Your task to perform on an android device: View the shopping cart on costco. Search for "panasonic triple a" on costco, select the first entry, and add it to the cart. Image 0: 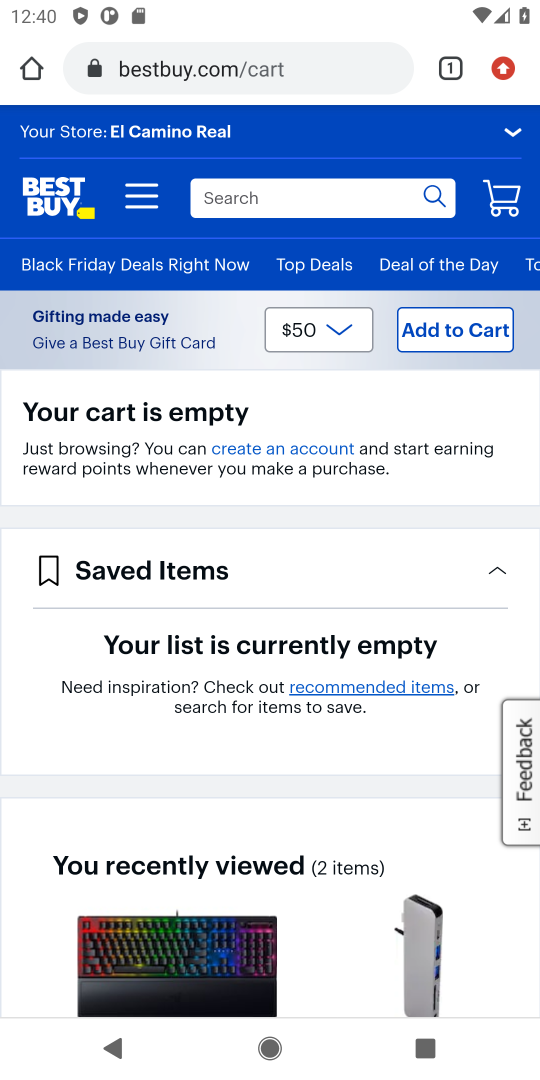
Step 0: click (298, 61)
Your task to perform on an android device: View the shopping cart on costco. Search for "panasonic triple a" on costco, select the first entry, and add it to the cart. Image 1: 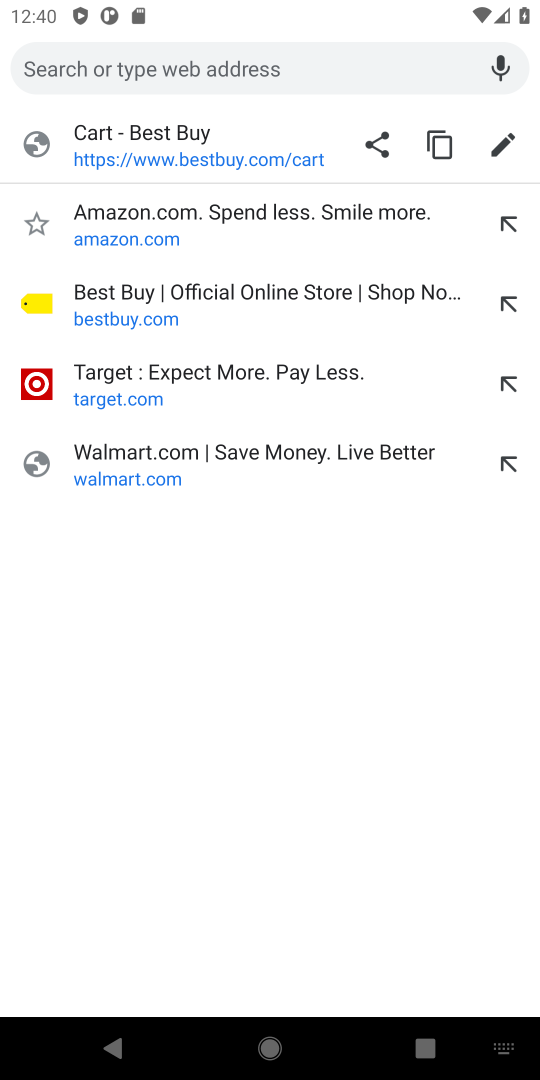
Step 1: type "costco"
Your task to perform on an android device: View the shopping cart on costco. Search for "panasonic triple a" on costco, select the first entry, and add it to the cart. Image 2: 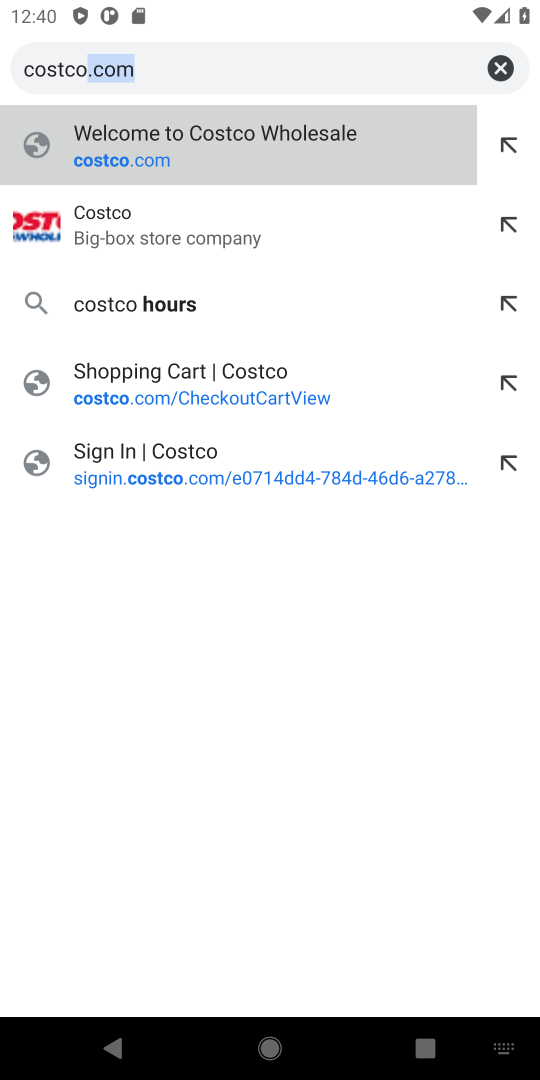
Step 2: type ""
Your task to perform on an android device: View the shopping cart on costco. Search for "panasonic triple a" on costco, select the first entry, and add it to the cart. Image 3: 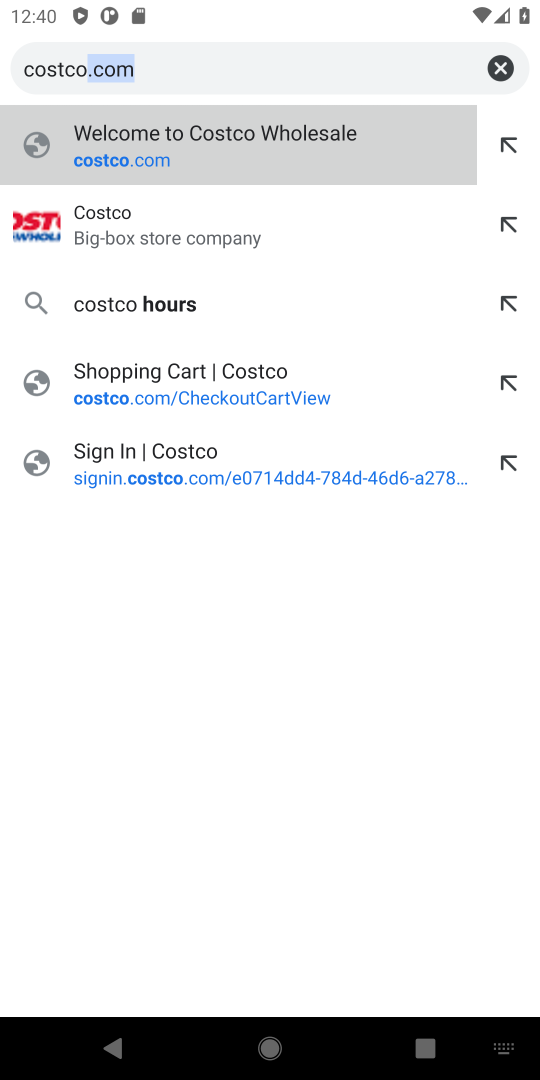
Step 3: press enter
Your task to perform on an android device: View the shopping cart on costco. Search for "panasonic triple a" on costco, select the first entry, and add it to the cart. Image 4: 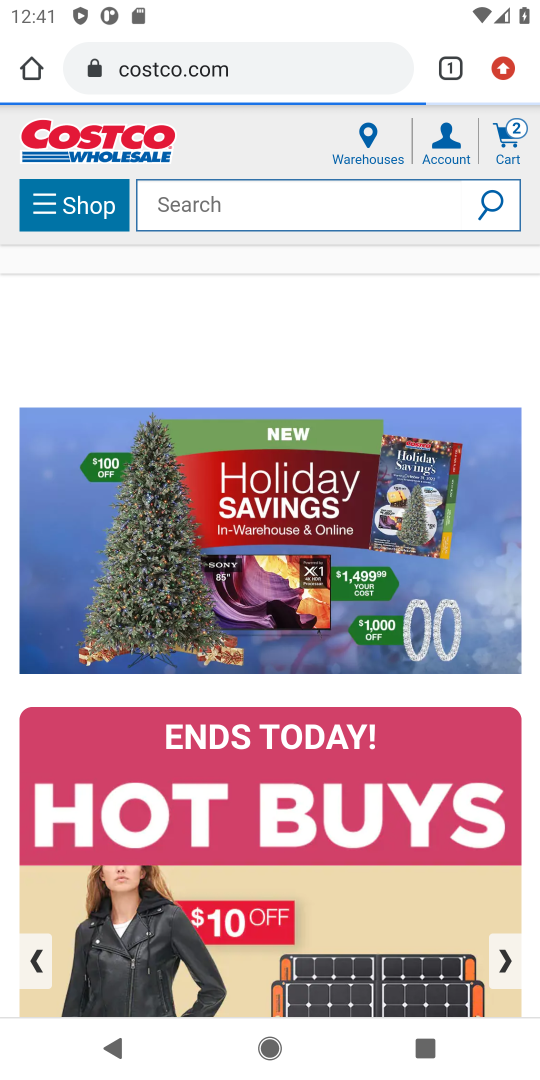
Step 4: click (502, 125)
Your task to perform on an android device: View the shopping cart on costco. Search for "panasonic triple a" on costco, select the first entry, and add it to the cart. Image 5: 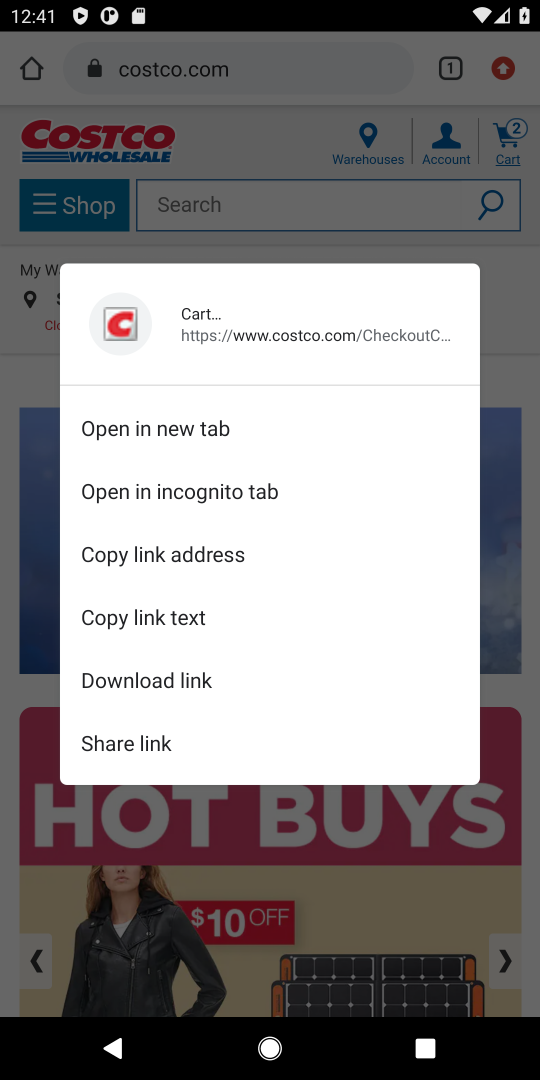
Step 5: click (517, 370)
Your task to perform on an android device: View the shopping cart on costco. Search for "panasonic triple a" on costco, select the first entry, and add it to the cart. Image 6: 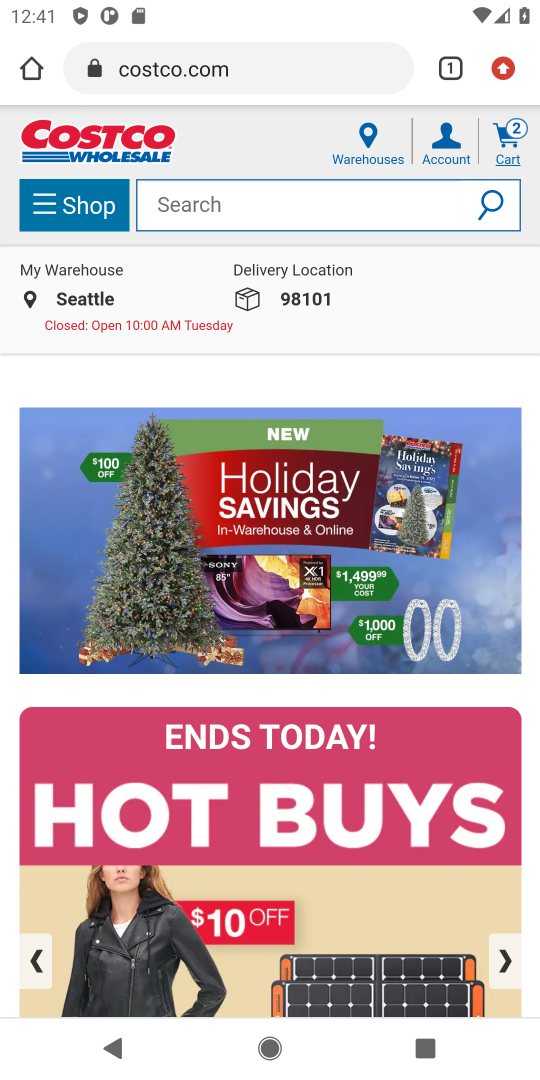
Step 6: click (512, 149)
Your task to perform on an android device: View the shopping cart on costco. Search for "panasonic triple a" on costco, select the first entry, and add it to the cart. Image 7: 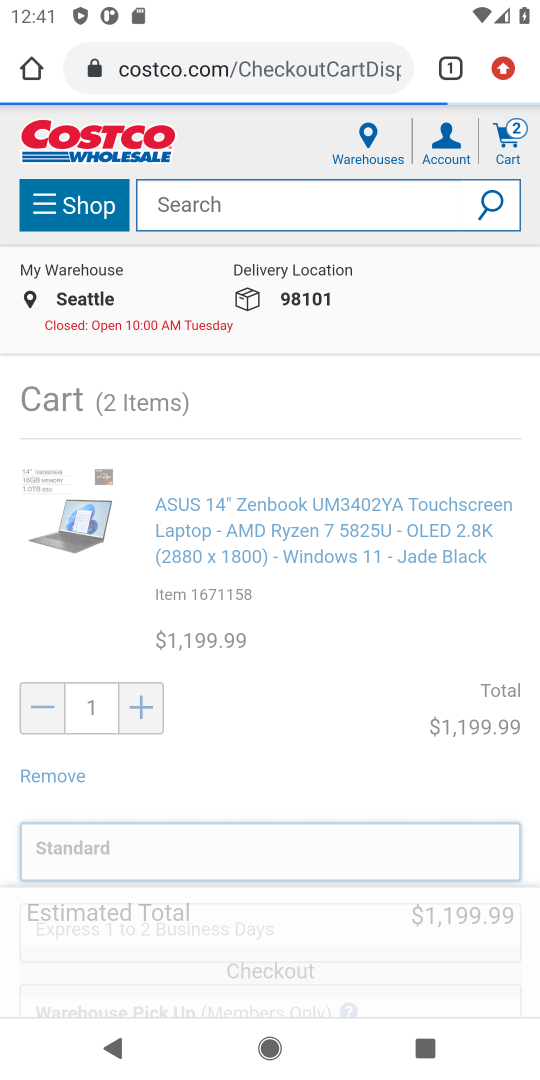
Step 7: click (66, 784)
Your task to perform on an android device: View the shopping cart on costco. Search for "panasonic triple a" on costco, select the first entry, and add it to the cart. Image 8: 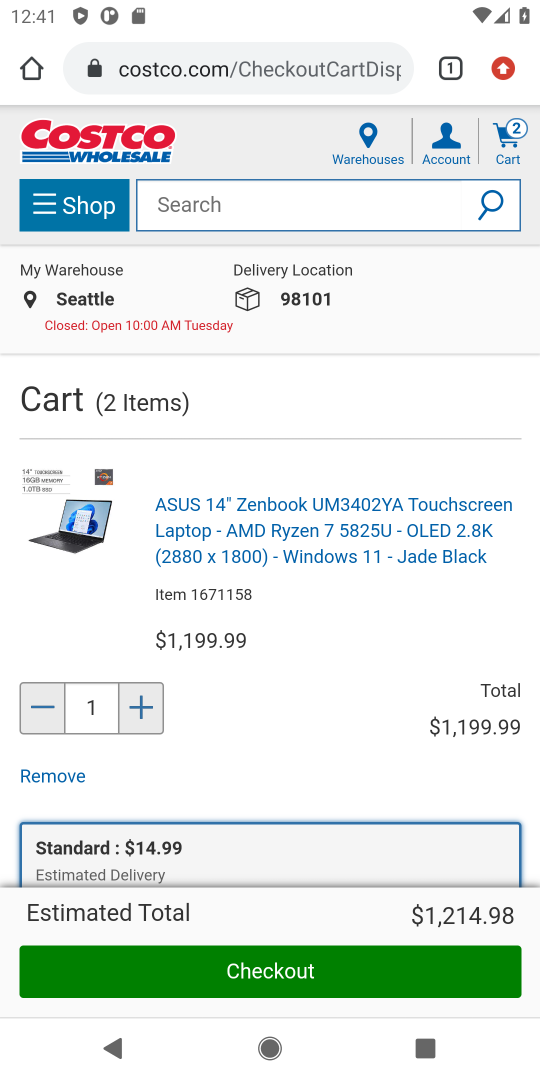
Step 8: click (69, 776)
Your task to perform on an android device: View the shopping cart on costco. Search for "panasonic triple a" on costco, select the first entry, and add it to the cart. Image 9: 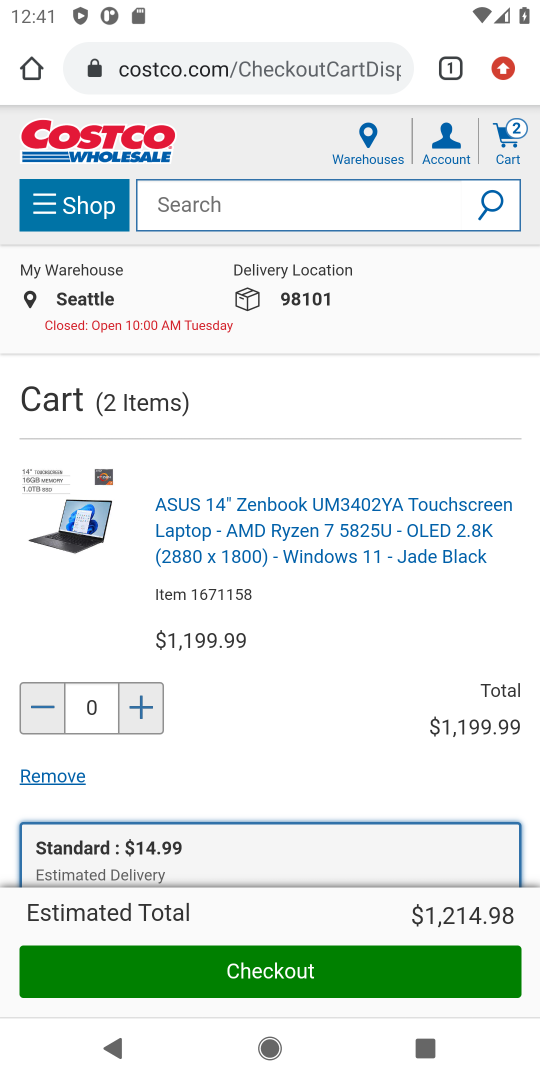
Step 9: drag from (342, 705) to (346, 138)
Your task to perform on an android device: View the shopping cart on costco. Search for "panasonic triple a" on costco, select the first entry, and add it to the cart. Image 10: 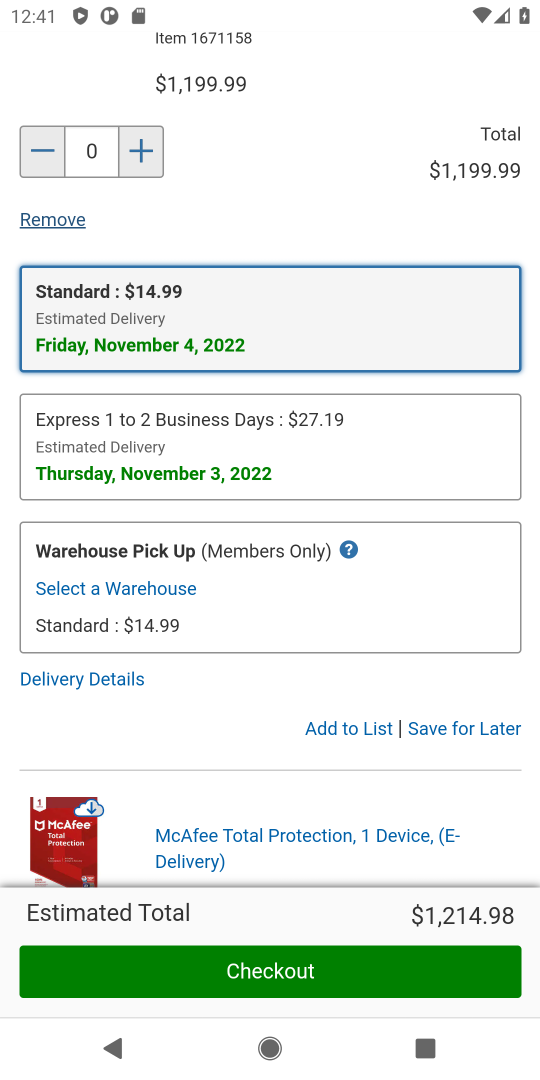
Step 10: click (458, 727)
Your task to perform on an android device: View the shopping cart on costco. Search for "panasonic triple a" on costco, select the first entry, and add it to the cart. Image 11: 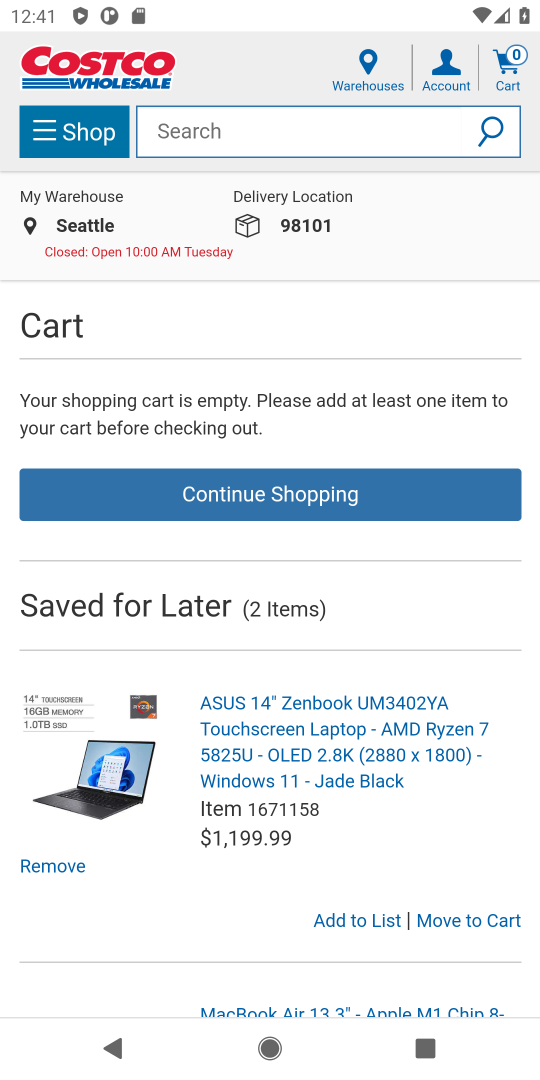
Step 11: click (307, 135)
Your task to perform on an android device: View the shopping cart on costco. Search for "panasonic triple a" on costco, select the first entry, and add it to the cart. Image 12: 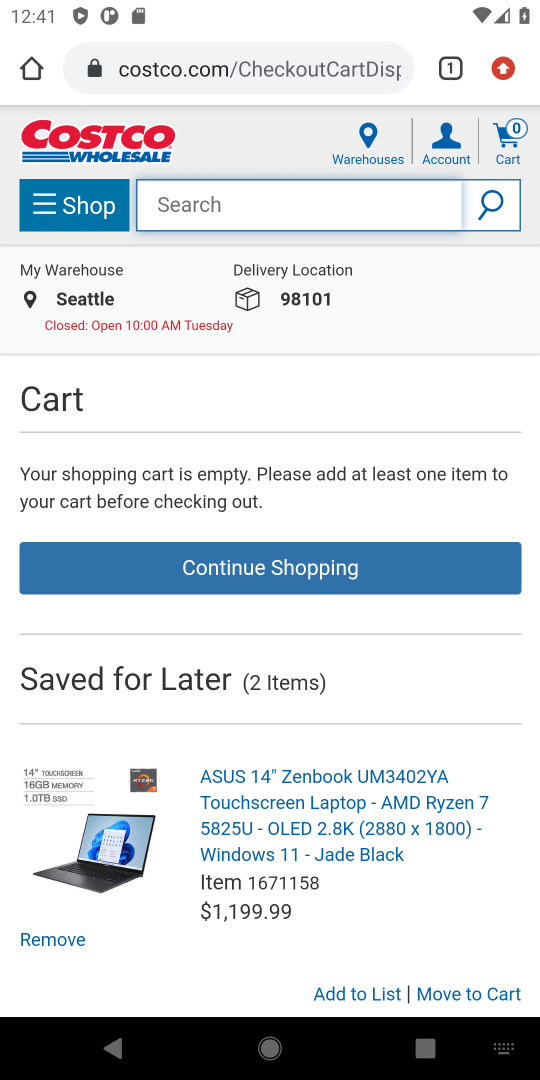
Step 12: type "panasonic triple a"
Your task to perform on an android device: View the shopping cart on costco. Search for "panasonic triple a" on costco, select the first entry, and add it to the cart. Image 13: 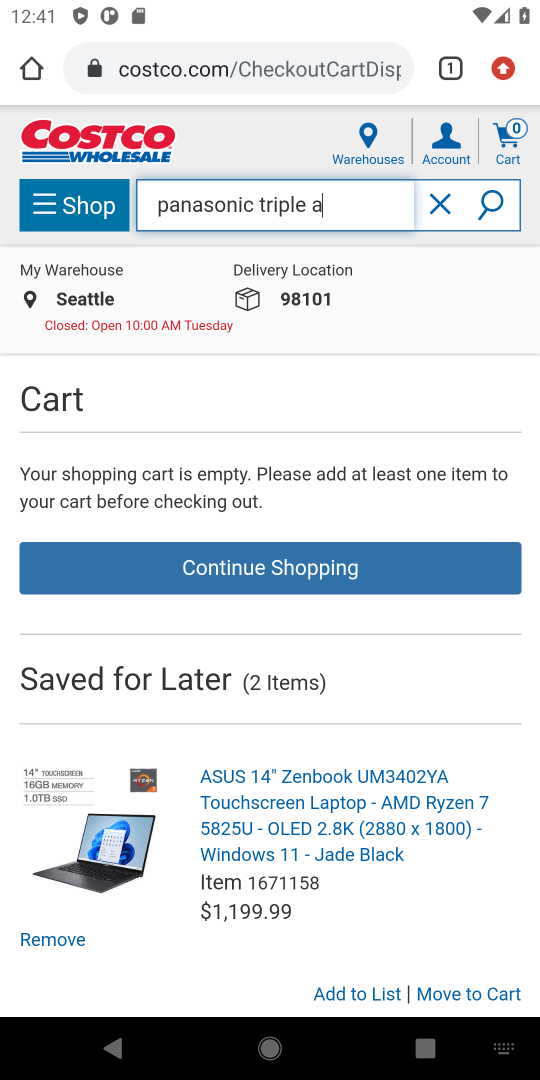
Step 13: type ""
Your task to perform on an android device: View the shopping cart on costco. Search for "panasonic triple a" on costco, select the first entry, and add it to the cart. Image 14: 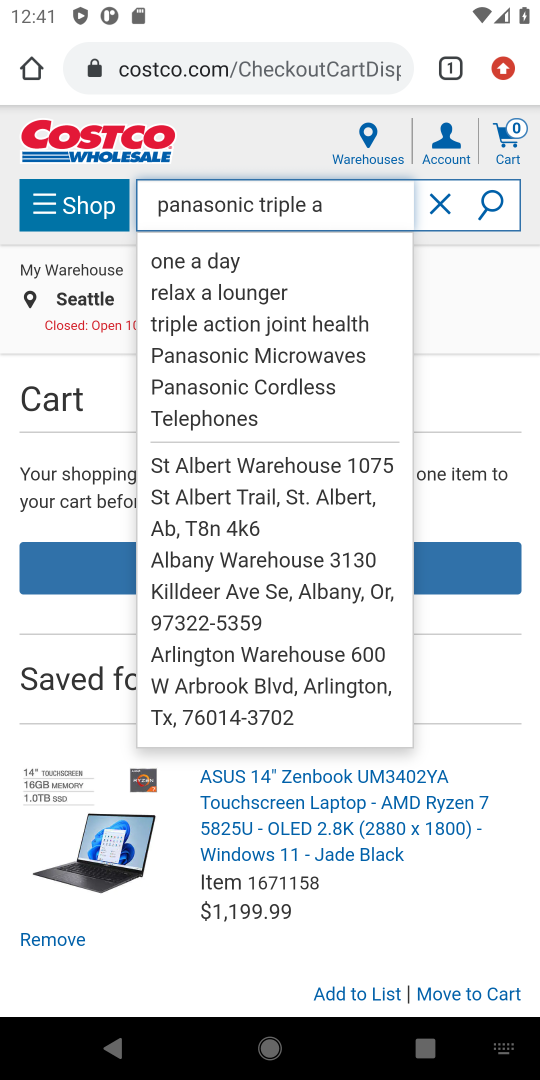
Step 14: press enter
Your task to perform on an android device: View the shopping cart on costco. Search for "panasonic triple a" on costco, select the first entry, and add it to the cart. Image 15: 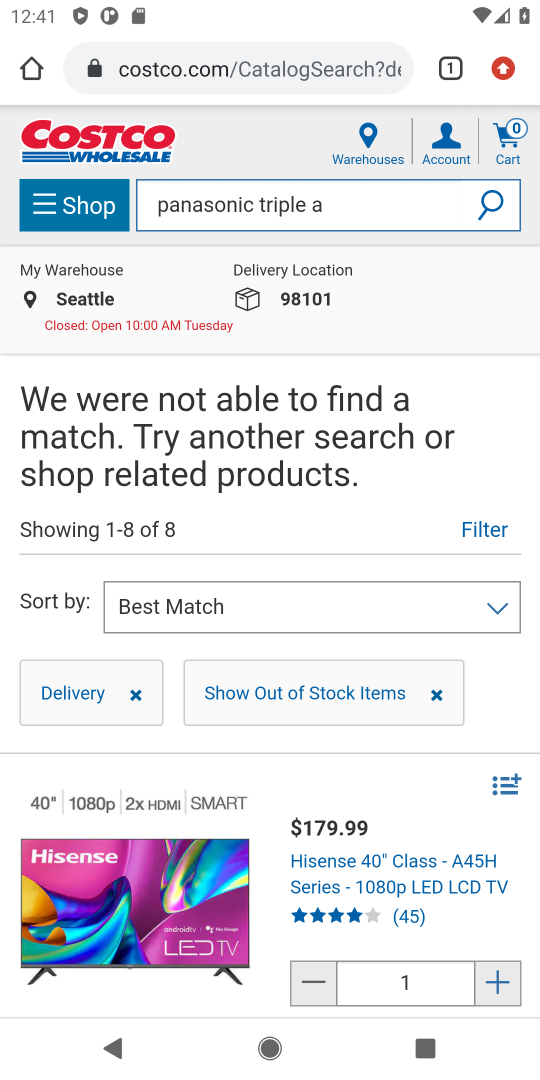
Step 15: task complete